Your task to perform on an android device: Open ESPN.com Image 0: 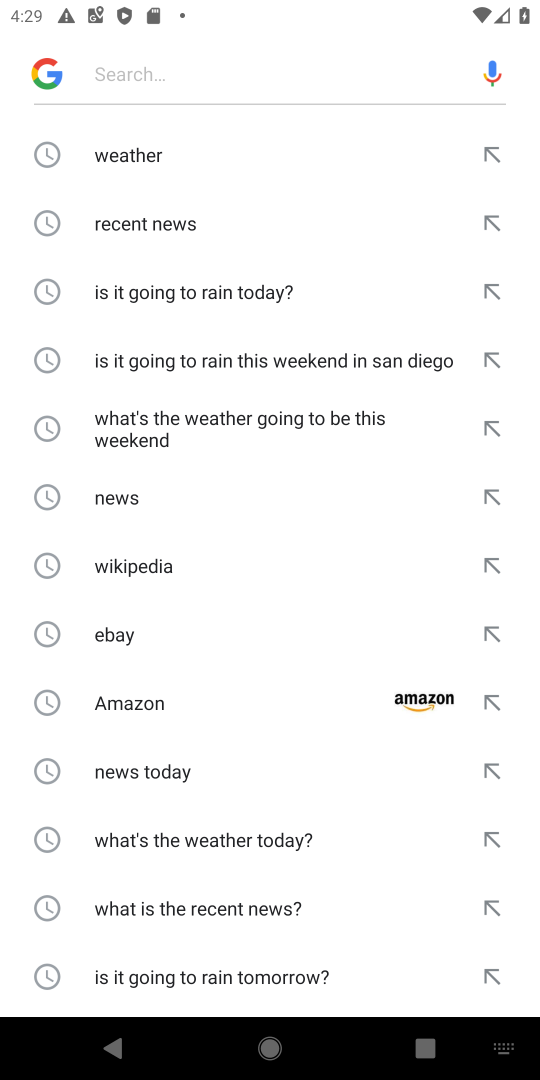
Step 0: press home button
Your task to perform on an android device: Open ESPN.com Image 1: 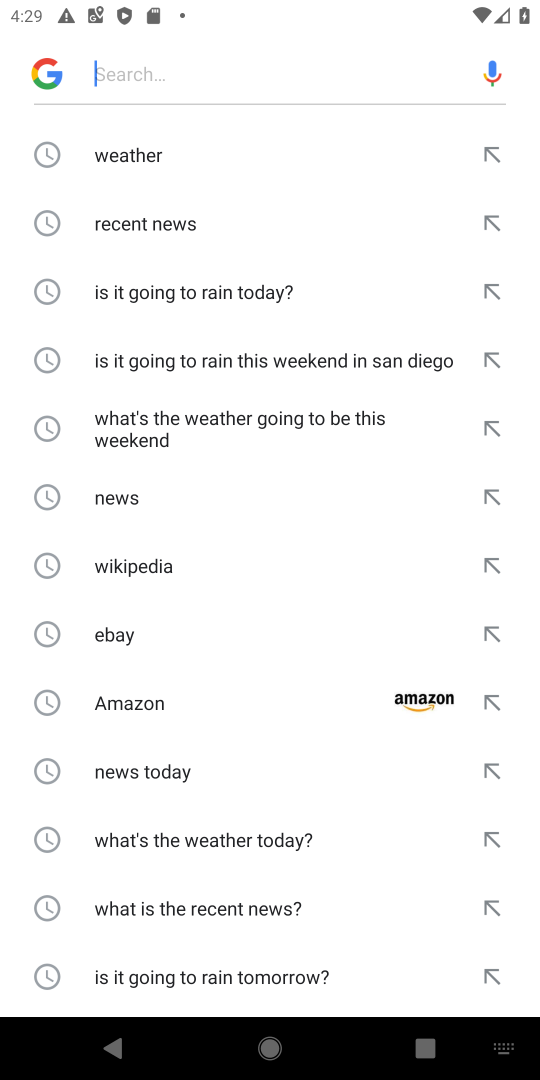
Step 1: press home button
Your task to perform on an android device: Open ESPN.com Image 2: 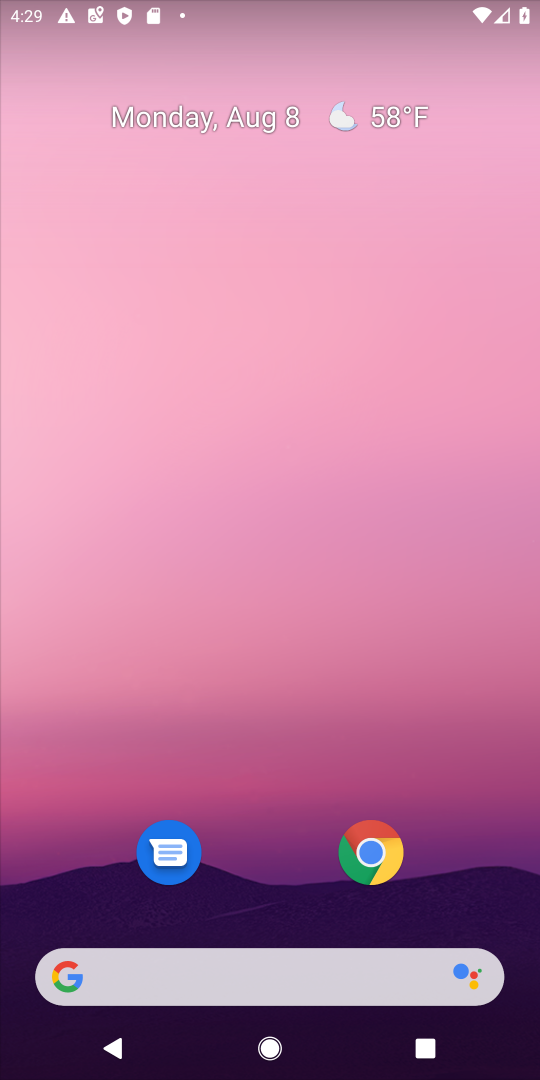
Step 2: drag from (271, 793) to (315, 38)
Your task to perform on an android device: Open ESPN.com Image 3: 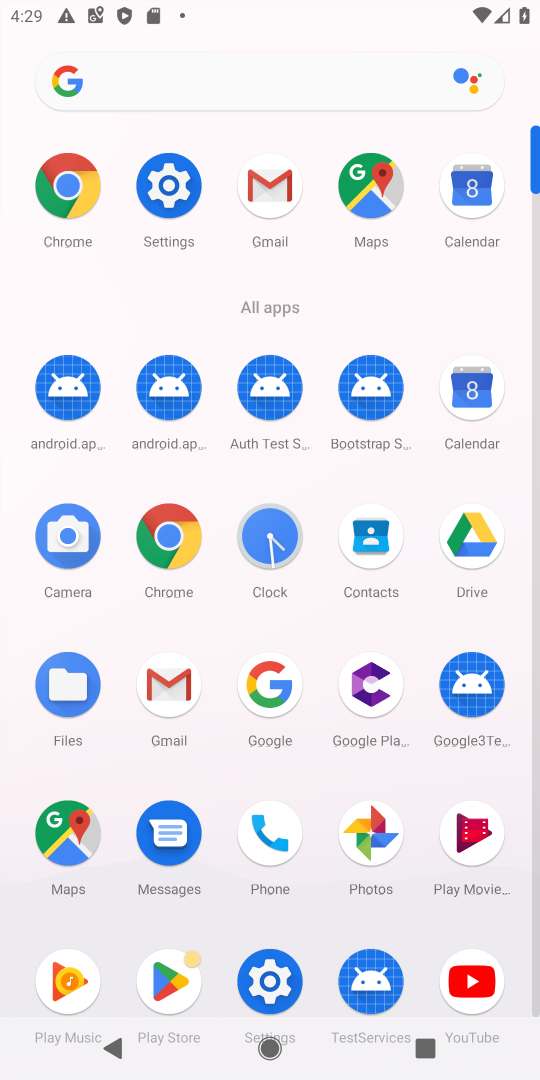
Step 3: click (176, 536)
Your task to perform on an android device: Open ESPN.com Image 4: 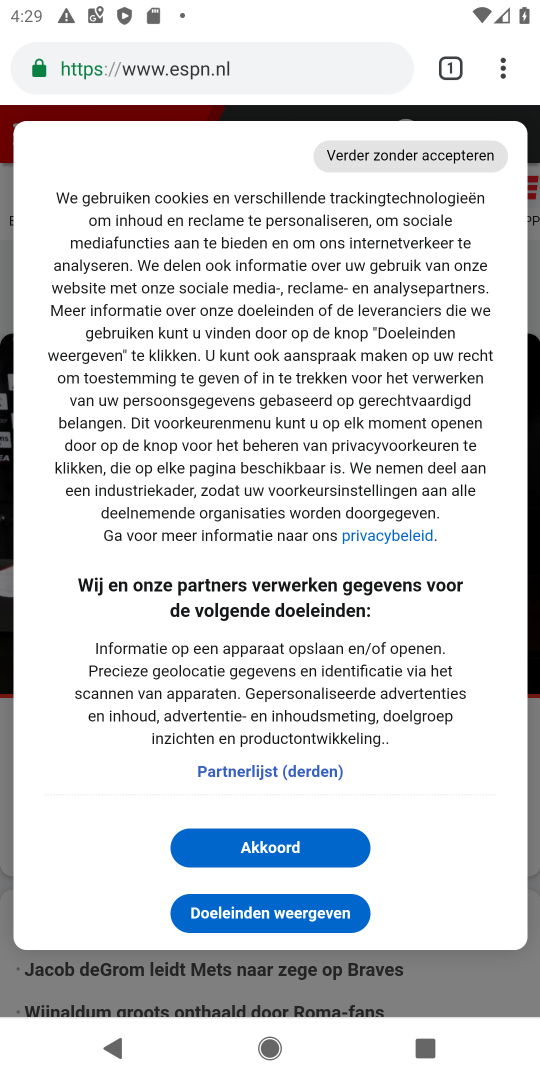
Step 4: task complete